Your task to perform on an android device: change alarm snooze length Image 0: 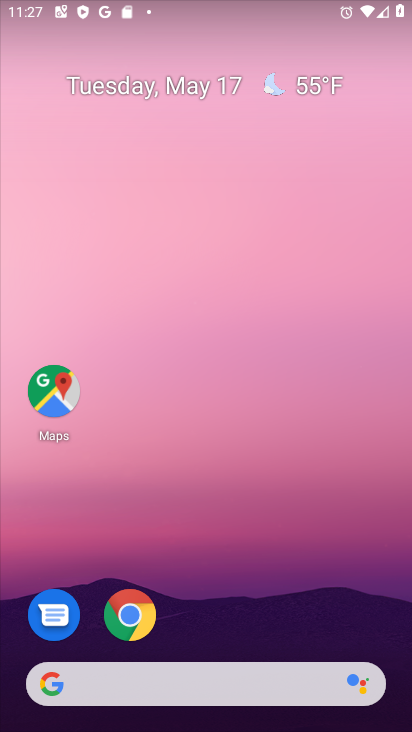
Step 0: drag from (344, 597) to (321, 28)
Your task to perform on an android device: change alarm snooze length Image 1: 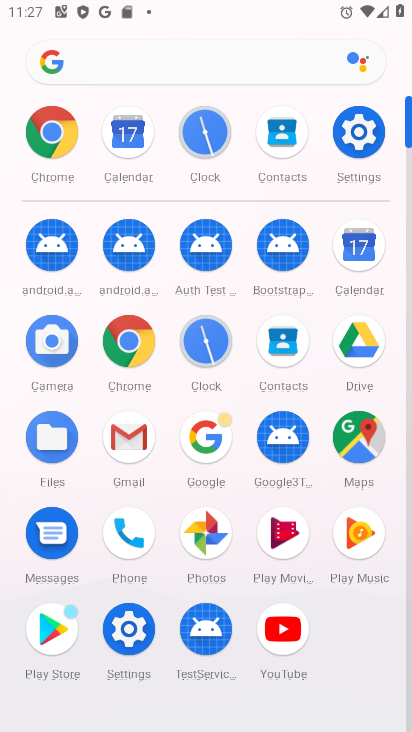
Step 1: click (217, 133)
Your task to perform on an android device: change alarm snooze length Image 2: 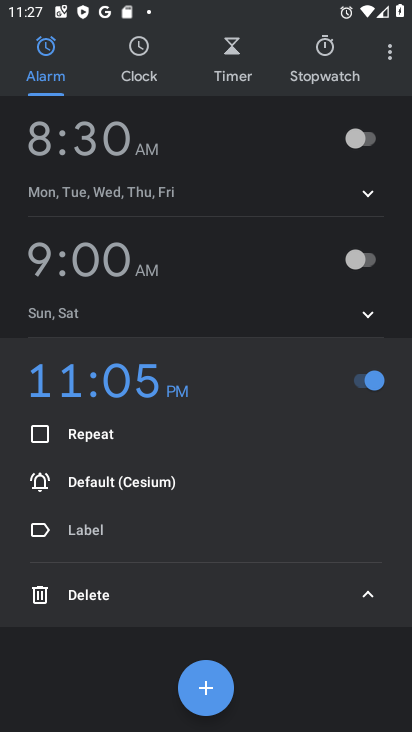
Step 2: drag from (384, 60) to (259, 104)
Your task to perform on an android device: change alarm snooze length Image 3: 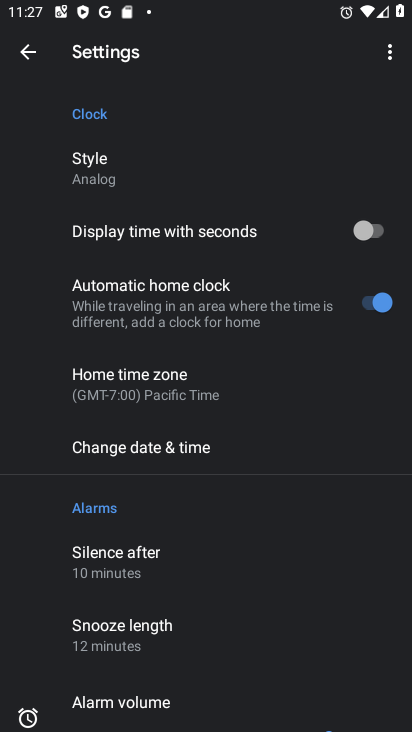
Step 3: drag from (209, 529) to (265, 247)
Your task to perform on an android device: change alarm snooze length Image 4: 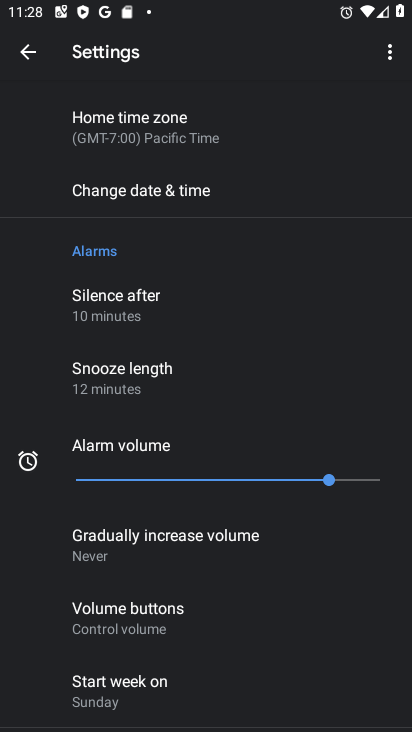
Step 4: click (160, 365)
Your task to perform on an android device: change alarm snooze length Image 5: 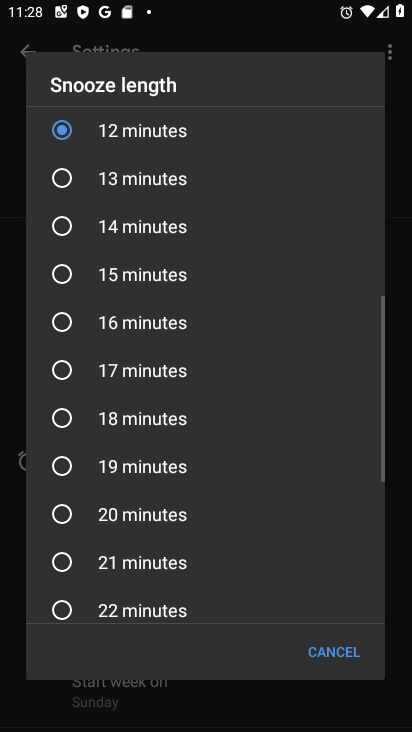
Step 5: click (159, 184)
Your task to perform on an android device: change alarm snooze length Image 6: 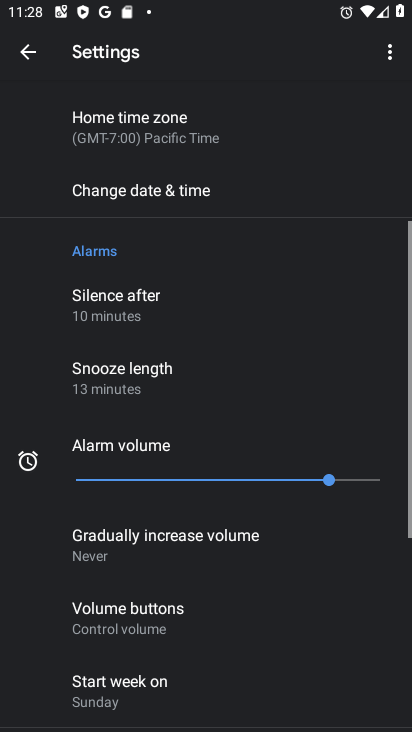
Step 6: task complete